Your task to perform on an android device: change the clock display to analog Image 0: 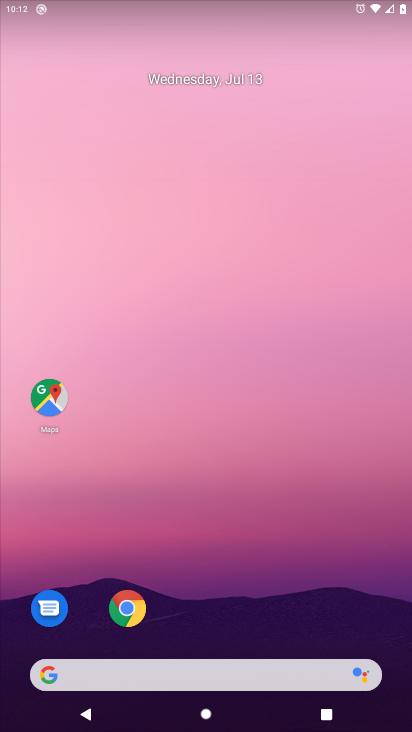
Step 0: drag from (30, 711) to (146, 60)
Your task to perform on an android device: change the clock display to analog Image 1: 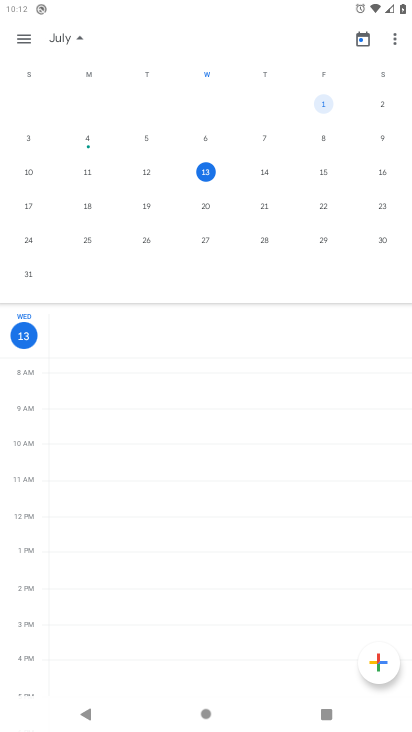
Step 1: task complete